Your task to perform on an android device: toggle notifications settings in the gmail app Image 0: 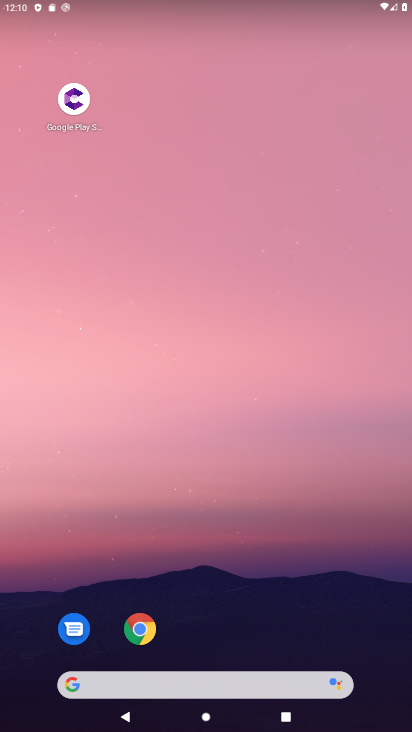
Step 0: drag from (318, 673) to (263, 72)
Your task to perform on an android device: toggle notifications settings in the gmail app Image 1: 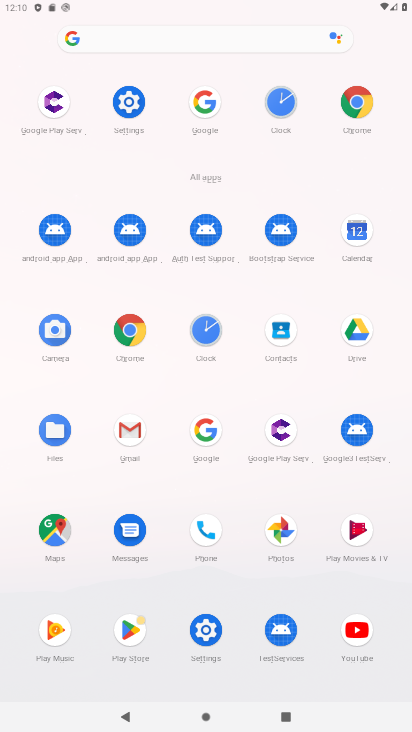
Step 1: click (127, 421)
Your task to perform on an android device: toggle notifications settings in the gmail app Image 2: 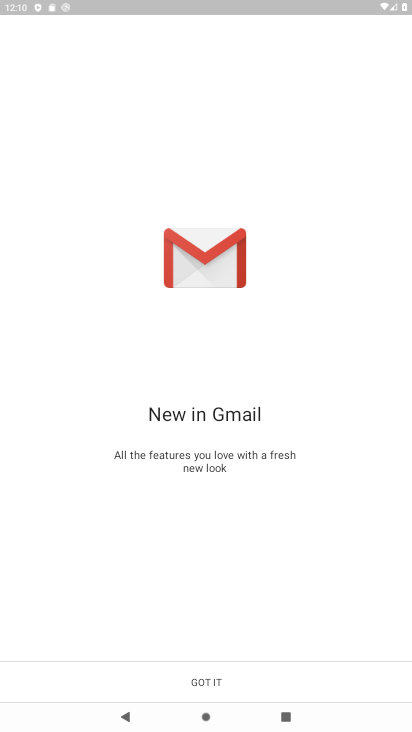
Step 2: click (244, 680)
Your task to perform on an android device: toggle notifications settings in the gmail app Image 3: 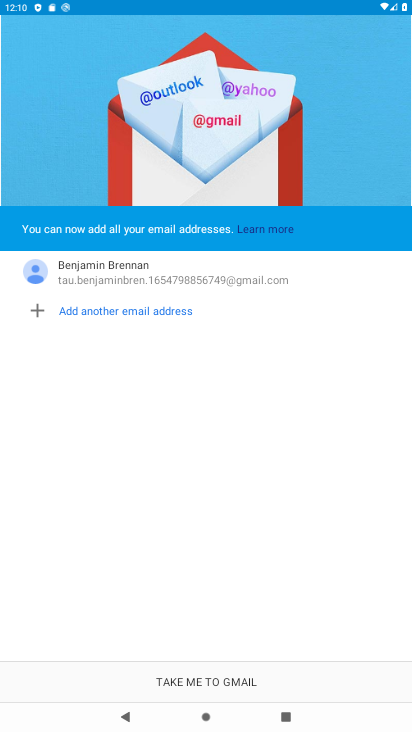
Step 3: click (244, 680)
Your task to perform on an android device: toggle notifications settings in the gmail app Image 4: 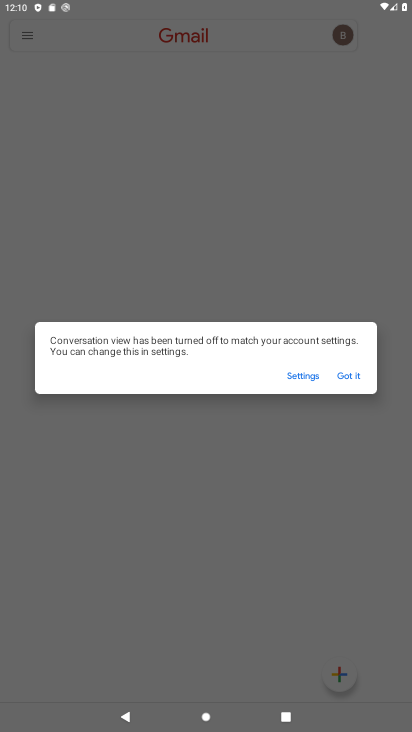
Step 4: click (345, 374)
Your task to perform on an android device: toggle notifications settings in the gmail app Image 5: 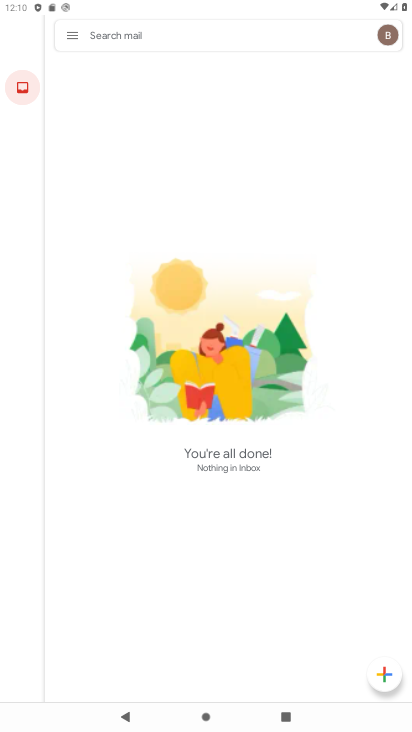
Step 5: click (71, 34)
Your task to perform on an android device: toggle notifications settings in the gmail app Image 6: 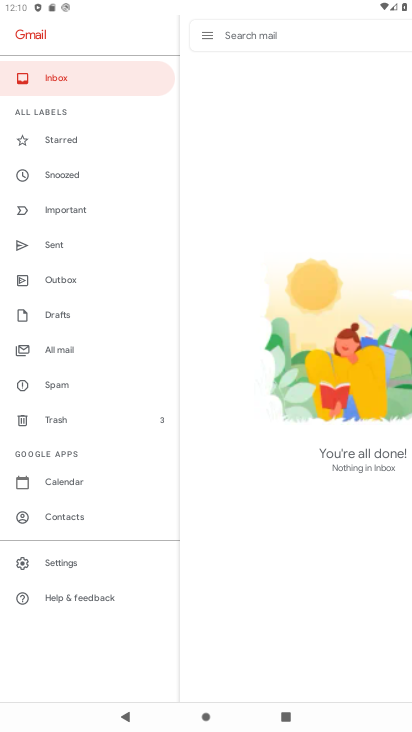
Step 6: click (64, 558)
Your task to perform on an android device: toggle notifications settings in the gmail app Image 7: 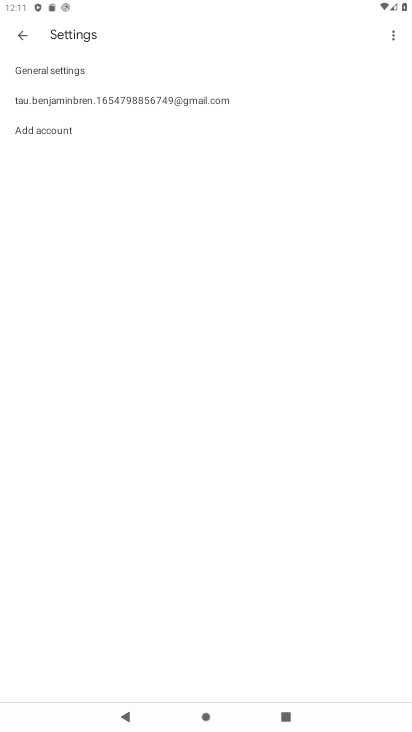
Step 7: click (122, 96)
Your task to perform on an android device: toggle notifications settings in the gmail app Image 8: 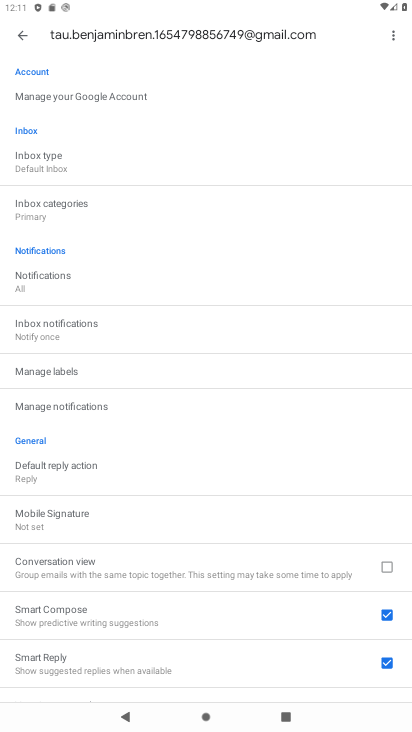
Step 8: click (62, 413)
Your task to perform on an android device: toggle notifications settings in the gmail app Image 9: 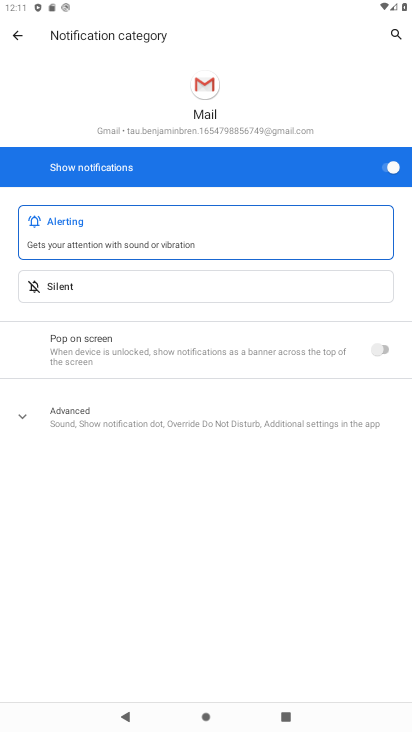
Step 9: click (394, 163)
Your task to perform on an android device: toggle notifications settings in the gmail app Image 10: 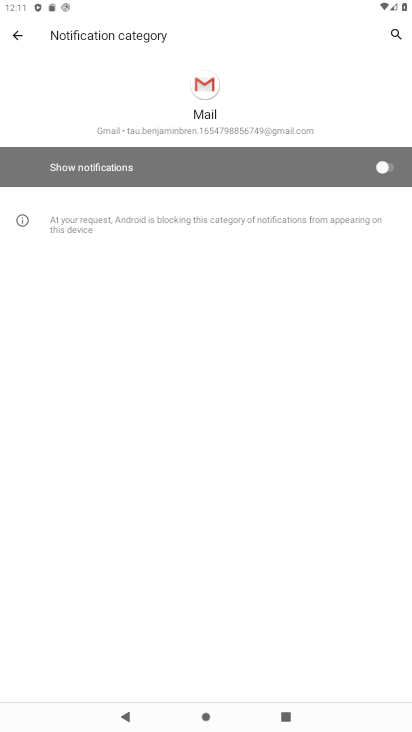
Step 10: task complete